Your task to perform on an android device: Open Reddit.com Image 0: 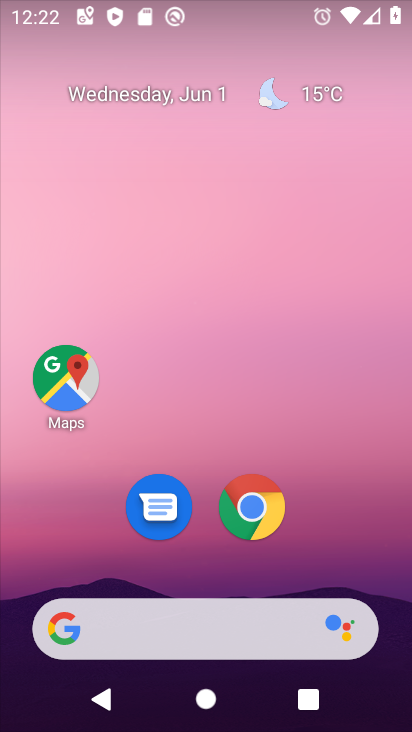
Step 0: click (254, 507)
Your task to perform on an android device: Open Reddit.com Image 1: 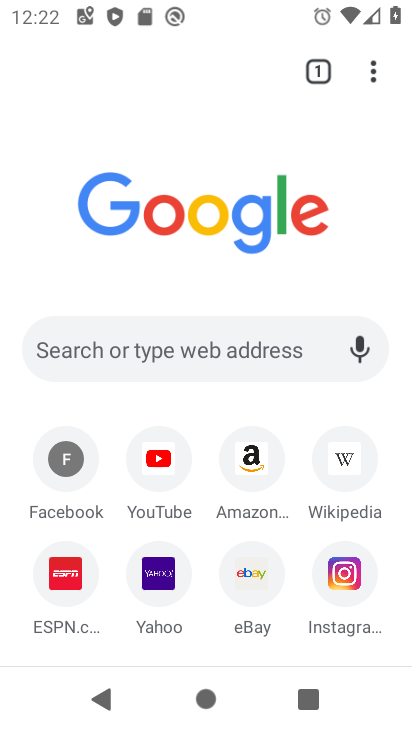
Step 1: click (202, 348)
Your task to perform on an android device: Open Reddit.com Image 2: 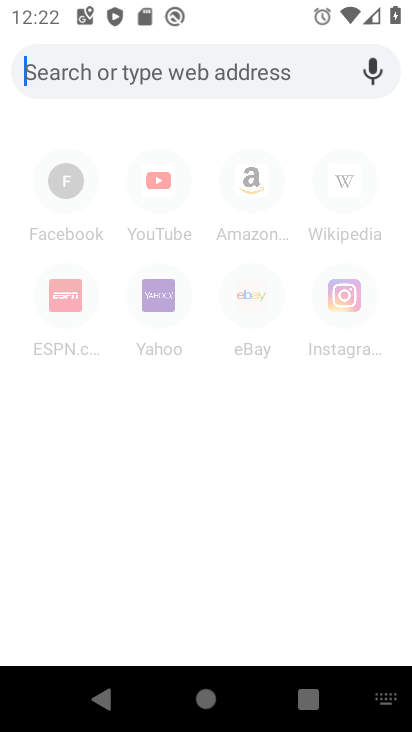
Step 2: type "Reddit.com"
Your task to perform on an android device: Open Reddit.com Image 3: 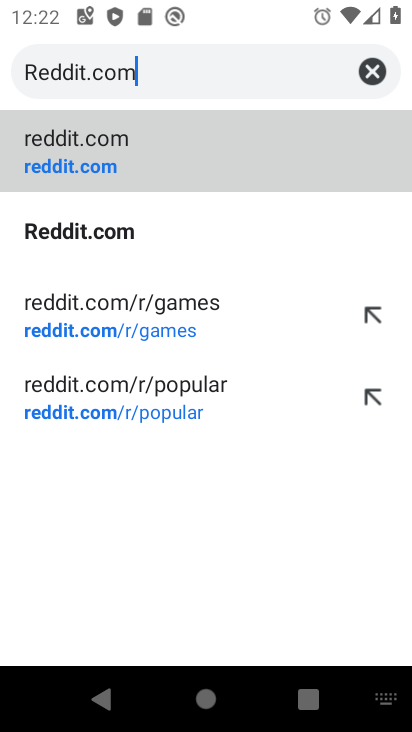
Step 3: click (112, 233)
Your task to perform on an android device: Open Reddit.com Image 4: 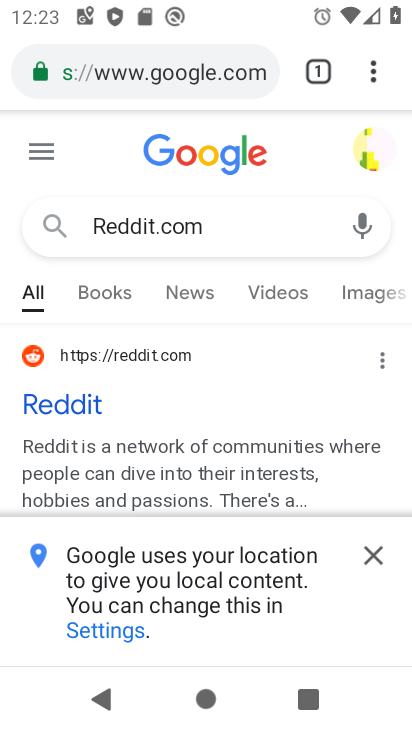
Step 4: click (62, 398)
Your task to perform on an android device: Open Reddit.com Image 5: 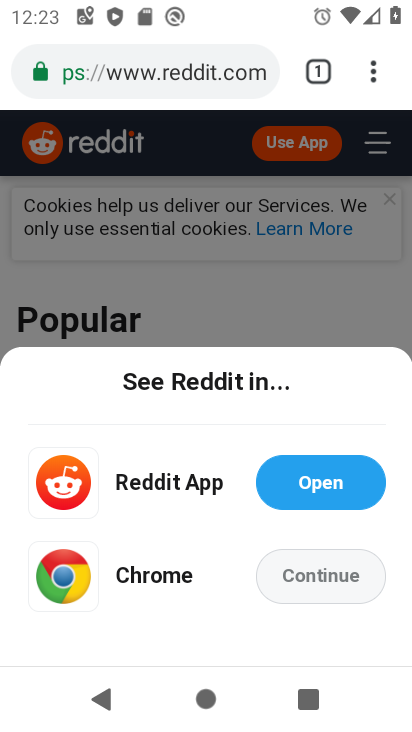
Step 5: click (298, 564)
Your task to perform on an android device: Open Reddit.com Image 6: 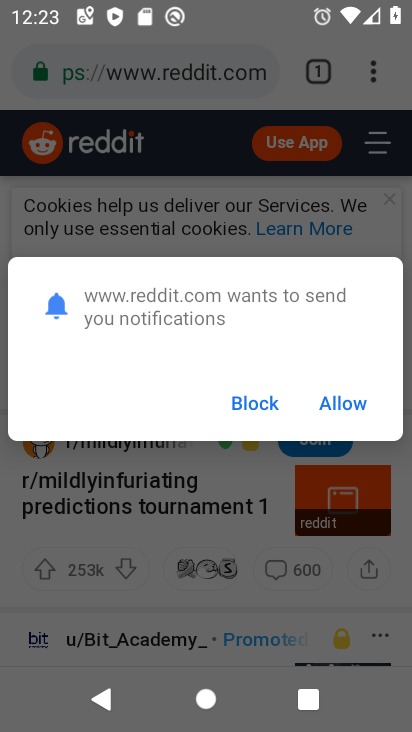
Step 6: click (356, 392)
Your task to perform on an android device: Open Reddit.com Image 7: 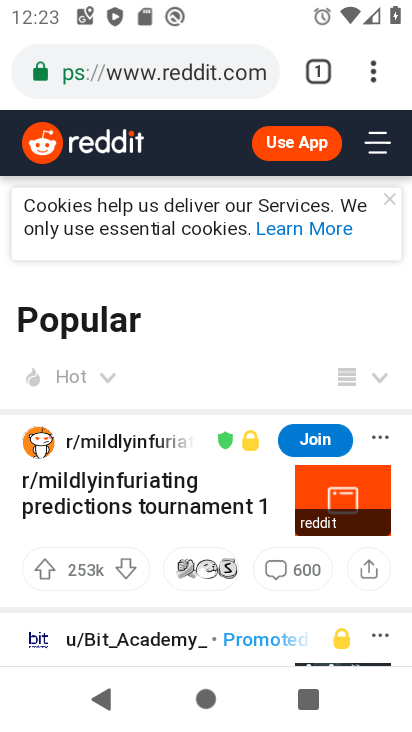
Step 7: task complete